Your task to perform on an android device: Open Wikipedia Image 0: 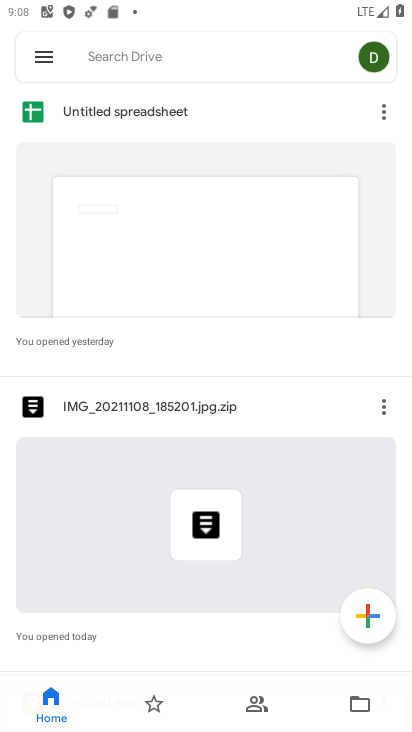
Step 0: press home button
Your task to perform on an android device: Open Wikipedia Image 1: 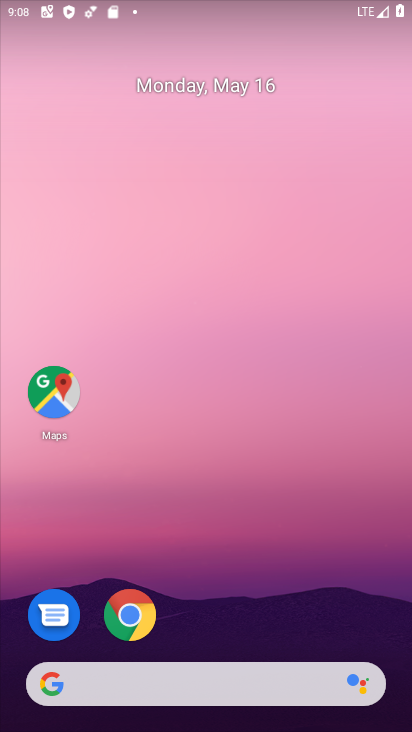
Step 1: drag from (284, 569) to (299, 249)
Your task to perform on an android device: Open Wikipedia Image 2: 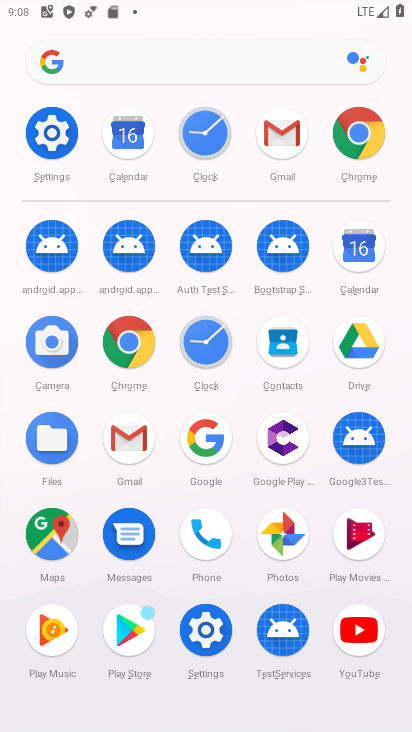
Step 2: click (347, 138)
Your task to perform on an android device: Open Wikipedia Image 3: 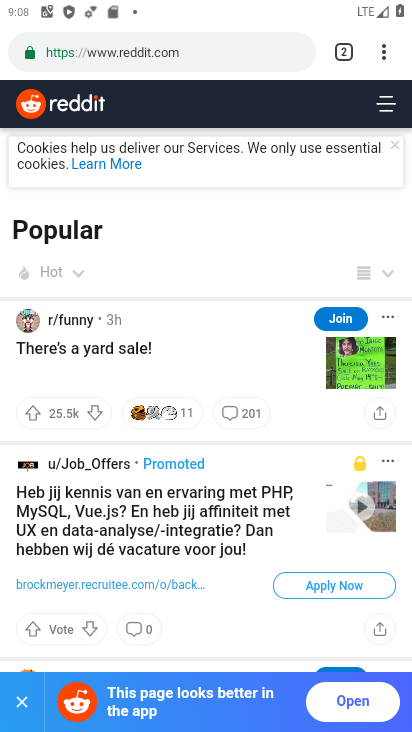
Step 3: click (249, 53)
Your task to perform on an android device: Open Wikipedia Image 4: 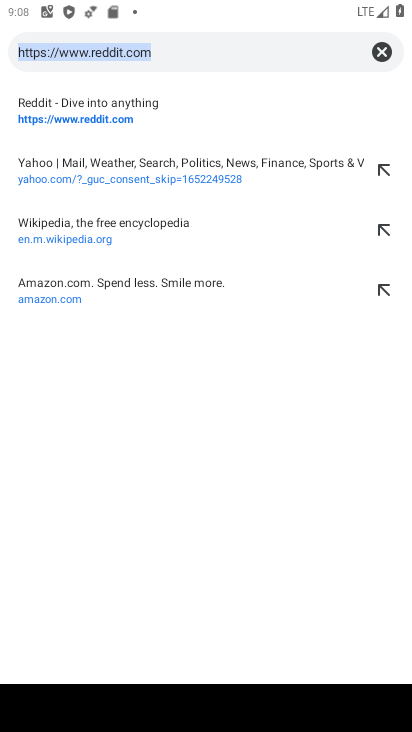
Step 4: click (49, 237)
Your task to perform on an android device: Open Wikipedia Image 5: 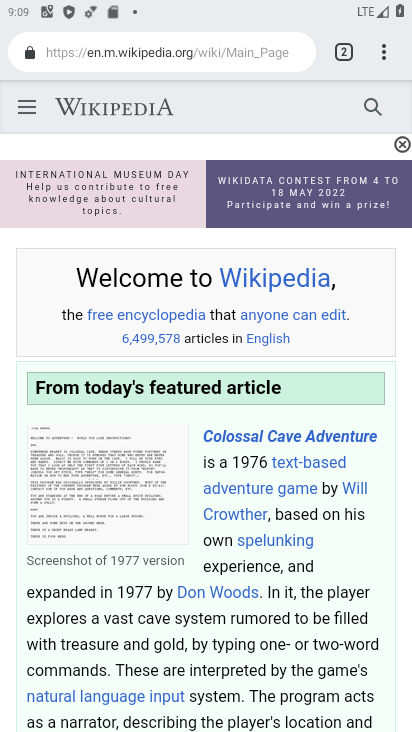
Step 5: task complete